Your task to perform on an android device: See recent photos Image 0: 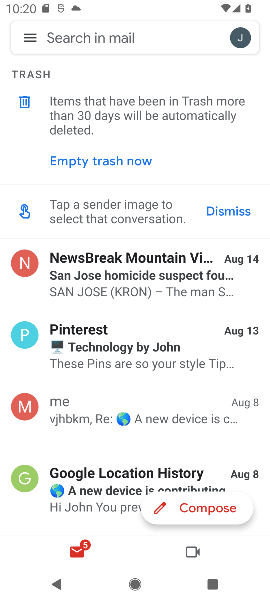
Step 0: press home button
Your task to perform on an android device: See recent photos Image 1: 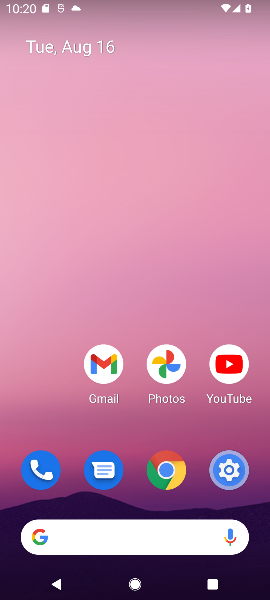
Step 1: click (168, 365)
Your task to perform on an android device: See recent photos Image 2: 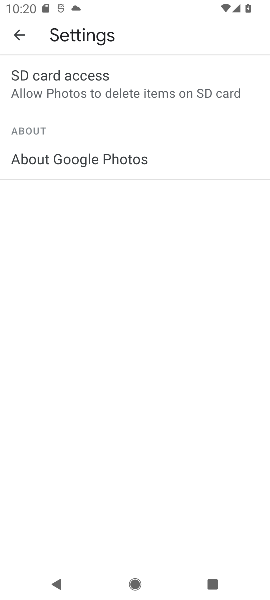
Step 2: click (19, 33)
Your task to perform on an android device: See recent photos Image 3: 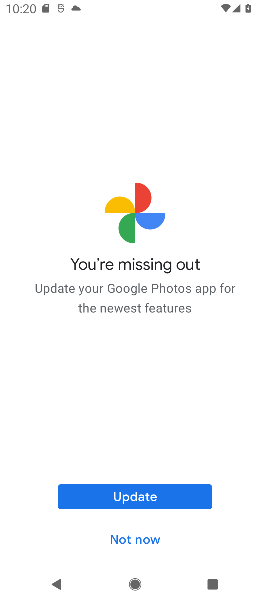
Step 3: click (127, 538)
Your task to perform on an android device: See recent photos Image 4: 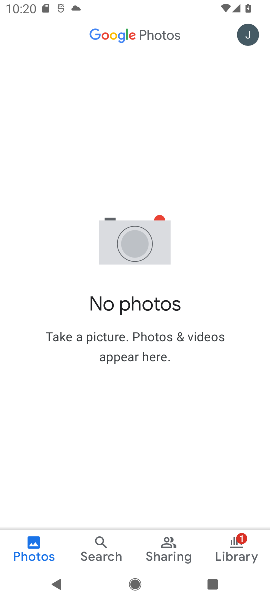
Step 4: task complete